Your task to perform on an android device: Go to Amazon Image 0: 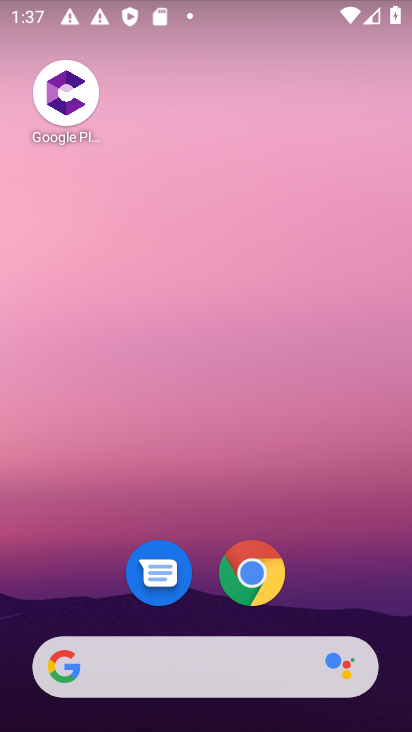
Step 0: click (258, 567)
Your task to perform on an android device: Go to Amazon Image 1: 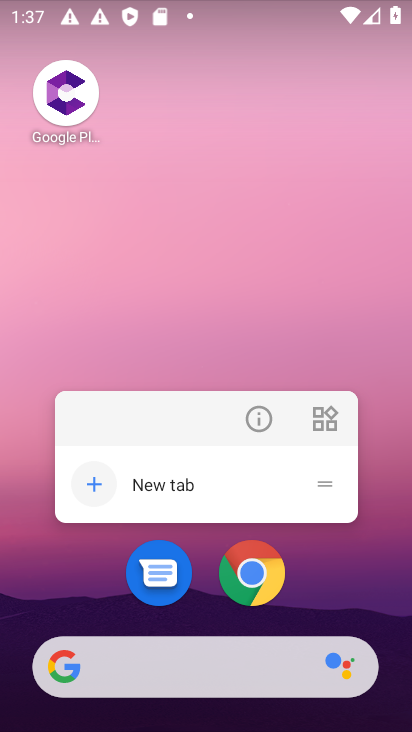
Step 1: click (254, 565)
Your task to perform on an android device: Go to Amazon Image 2: 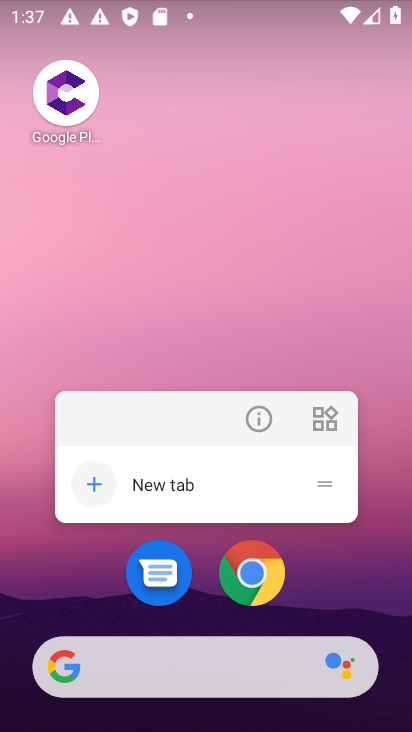
Step 2: click (229, 580)
Your task to perform on an android device: Go to Amazon Image 3: 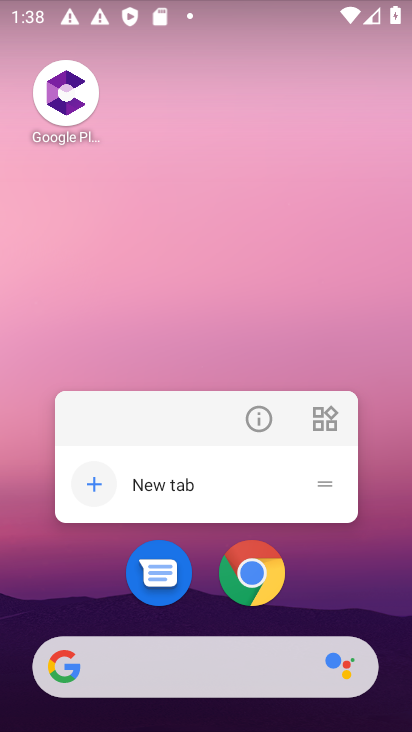
Step 3: click (256, 569)
Your task to perform on an android device: Go to Amazon Image 4: 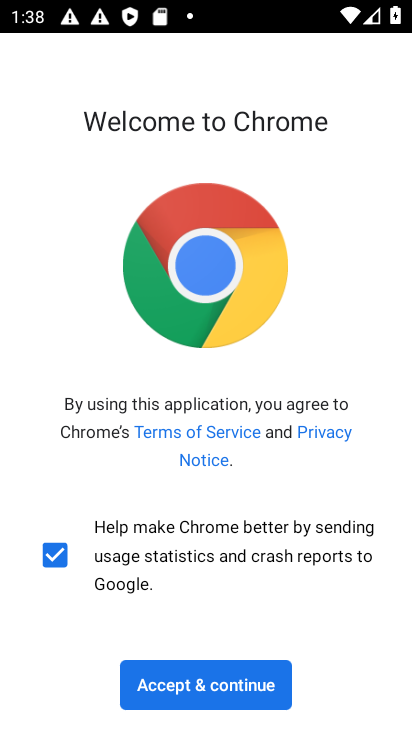
Step 4: click (251, 686)
Your task to perform on an android device: Go to Amazon Image 5: 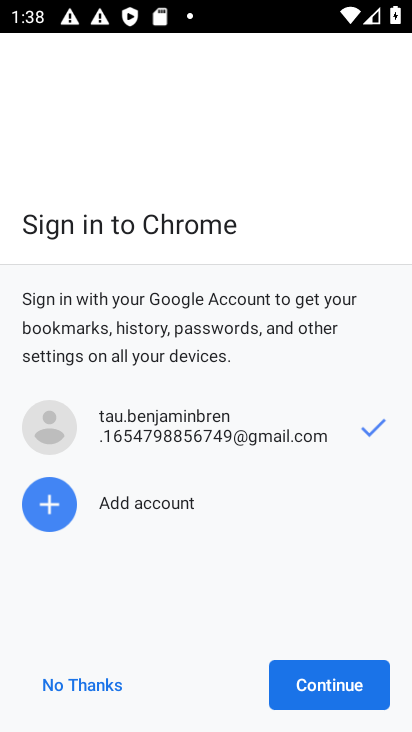
Step 5: click (86, 681)
Your task to perform on an android device: Go to Amazon Image 6: 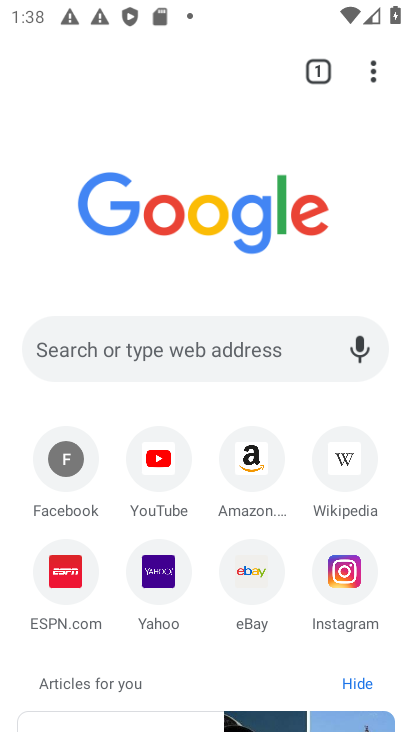
Step 6: click (243, 460)
Your task to perform on an android device: Go to Amazon Image 7: 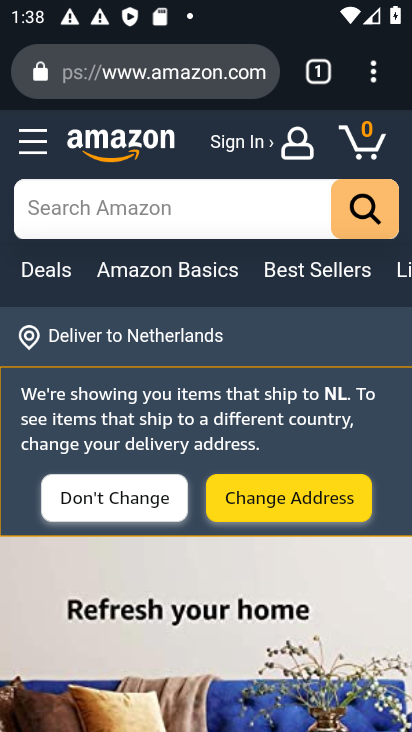
Step 7: task complete